Your task to perform on an android device: install app "Spotify" Image 0: 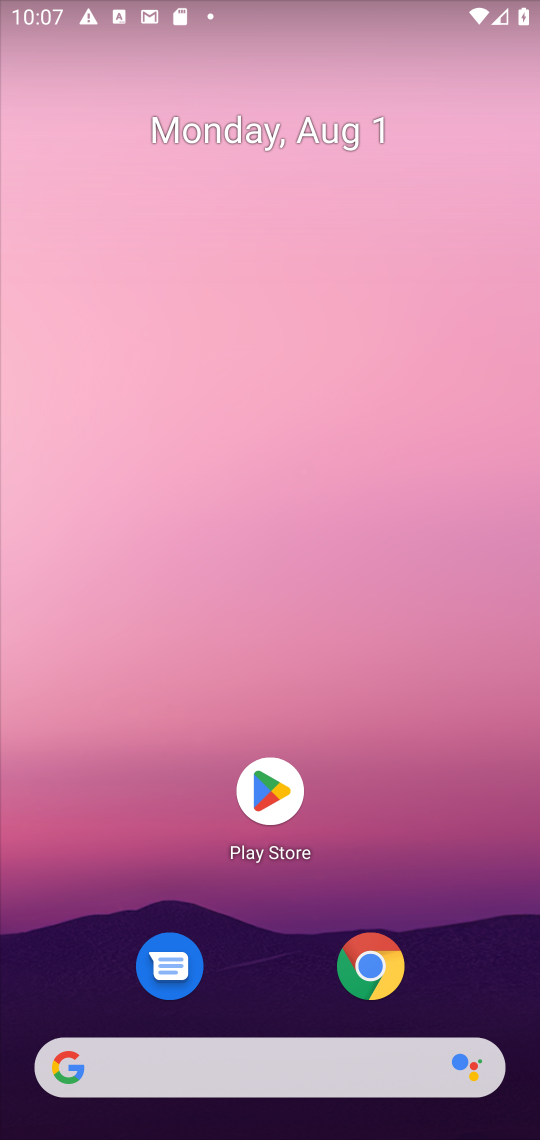
Step 0: drag from (520, 1084) to (270, 178)
Your task to perform on an android device: install app "Spotify" Image 1: 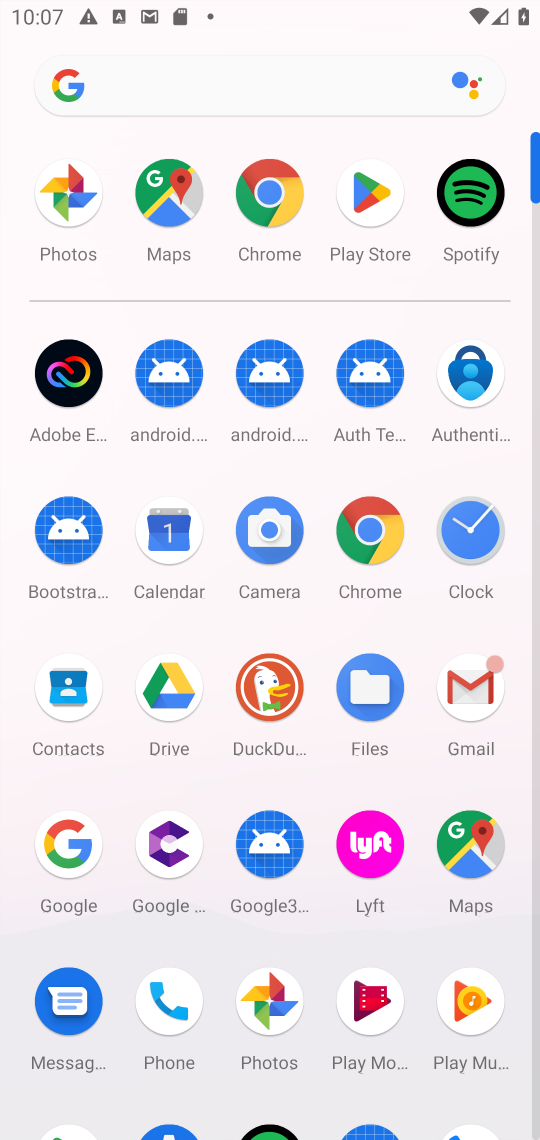
Step 1: task complete